Your task to perform on an android device: toggle data saver in the chrome app Image 0: 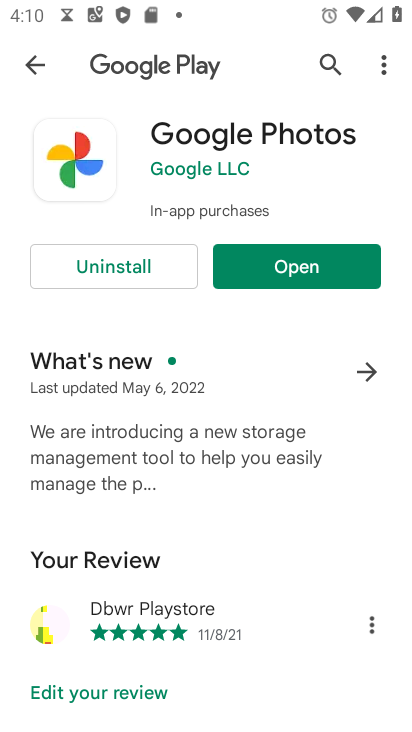
Step 0: press home button
Your task to perform on an android device: toggle data saver in the chrome app Image 1: 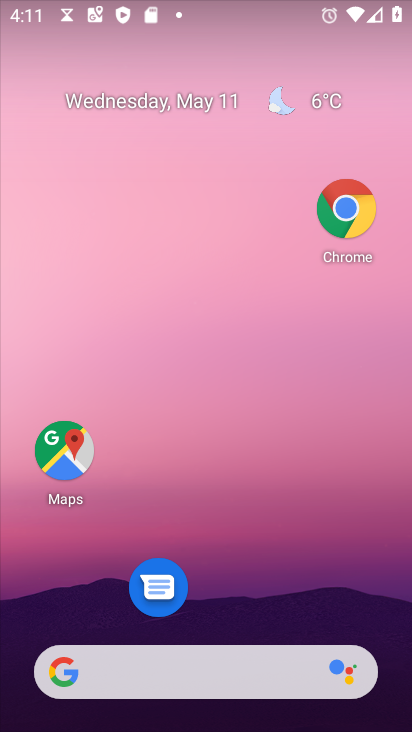
Step 1: press home button
Your task to perform on an android device: toggle data saver in the chrome app Image 2: 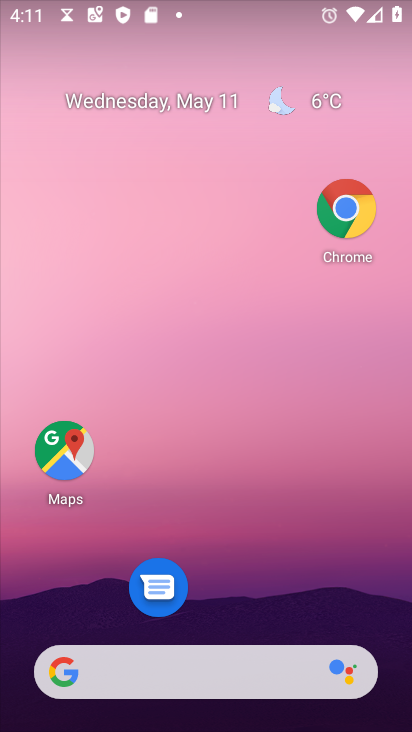
Step 2: press home button
Your task to perform on an android device: toggle data saver in the chrome app Image 3: 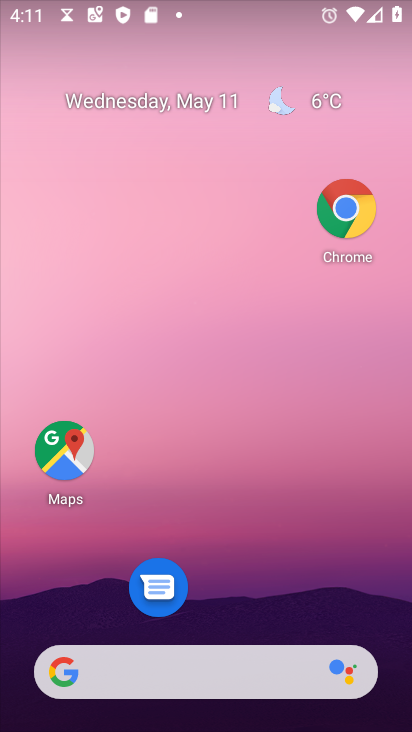
Step 3: click (339, 207)
Your task to perform on an android device: toggle data saver in the chrome app Image 4: 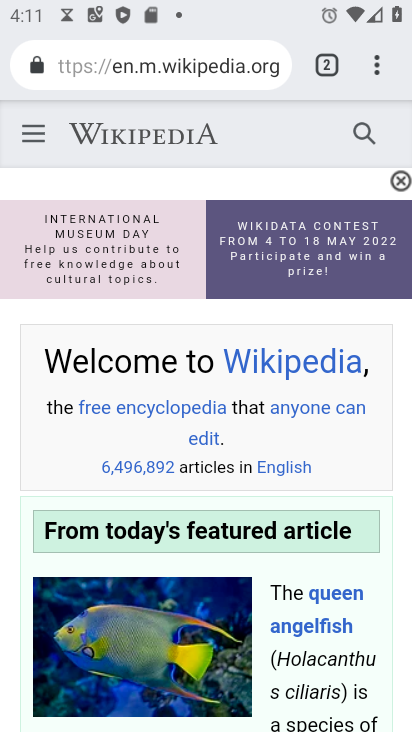
Step 4: click (378, 58)
Your task to perform on an android device: toggle data saver in the chrome app Image 5: 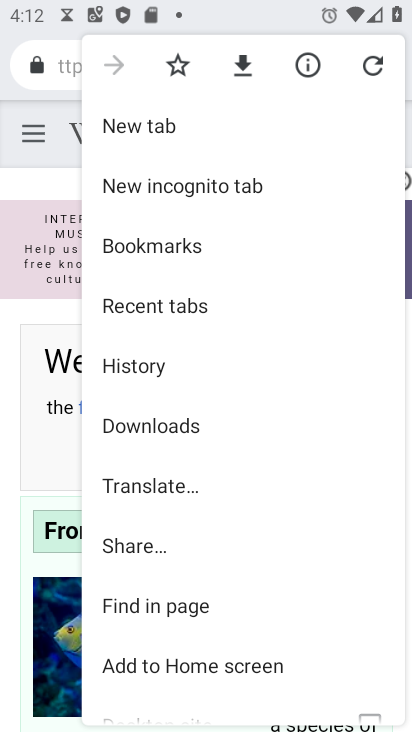
Step 5: drag from (226, 589) to (216, 226)
Your task to perform on an android device: toggle data saver in the chrome app Image 6: 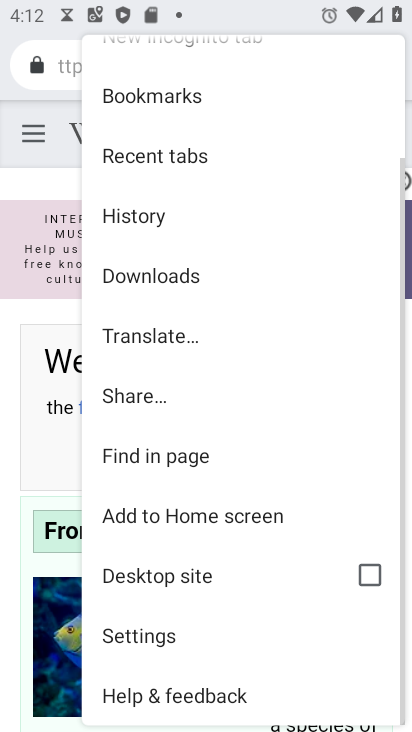
Step 6: click (138, 629)
Your task to perform on an android device: toggle data saver in the chrome app Image 7: 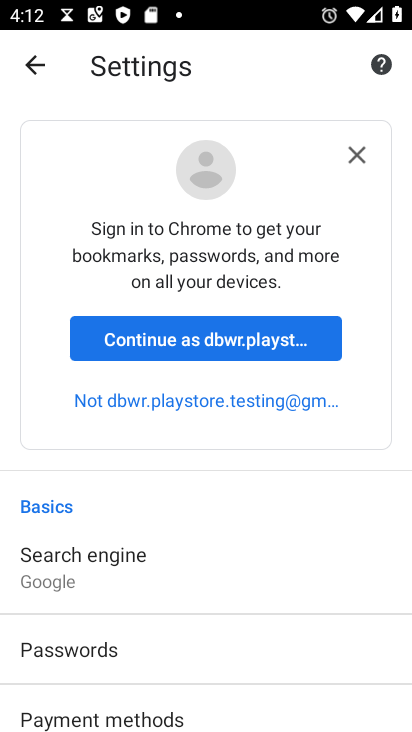
Step 7: drag from (269, 535) to (211, 118)
Your task to perform on an android device: toggle data saver in the chrome app Image 8: 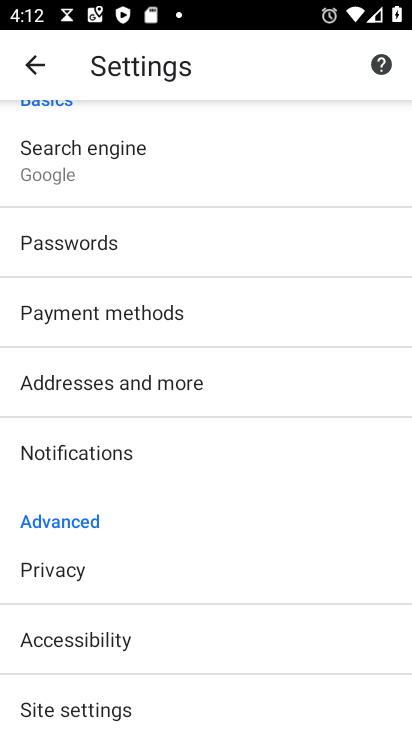
Step 8: drag from (272, 568) to (218, 150)
Your task to perform on an android device: toggle data saver in the chrome app Image 9: 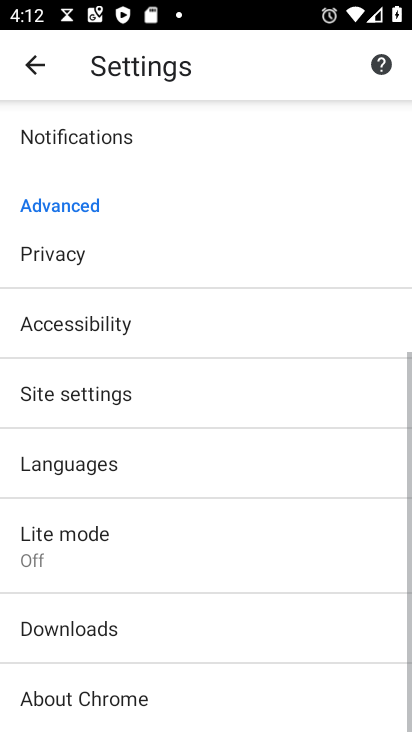
Step 9: click (76, 541)
Your task to perform on an android device: toggle data saver in the chrome app Image 10: 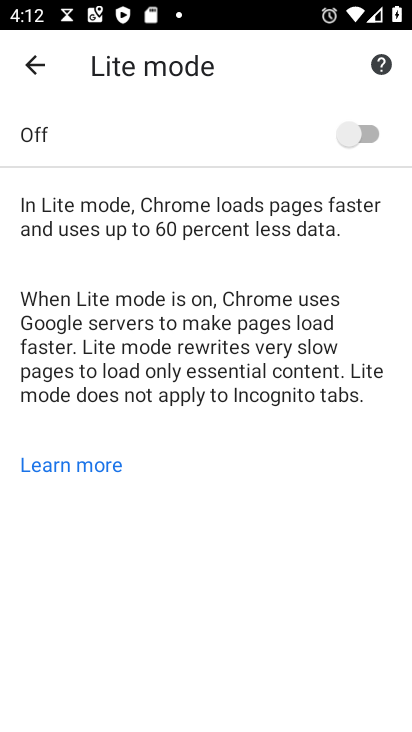
Step 10: click (359, 134)
Your task to perform on an android device: toggle data saver in the chrome app Image 11: 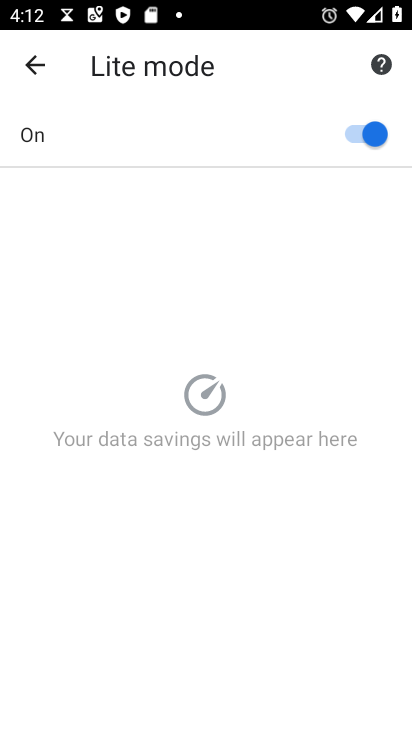
Step 11: task complete